Your task to perform on an android device: Open Google Image 0: 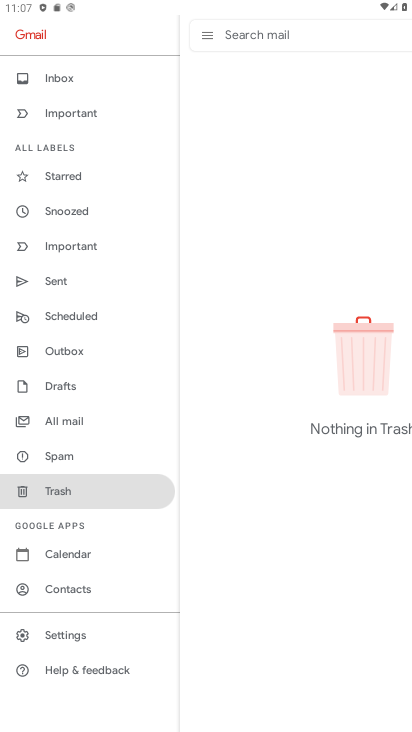
Step 0: press home button
Your task to perform on an android device: Open Google Image 1: 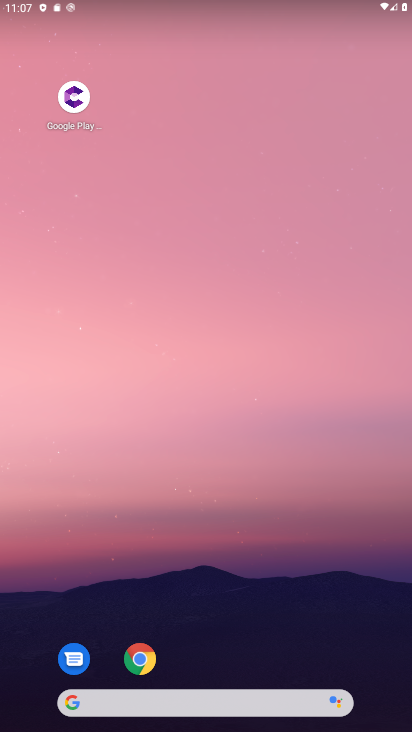
Step 1: click (138, 664)
Your task to perform on an android device: Open Google Image 2: 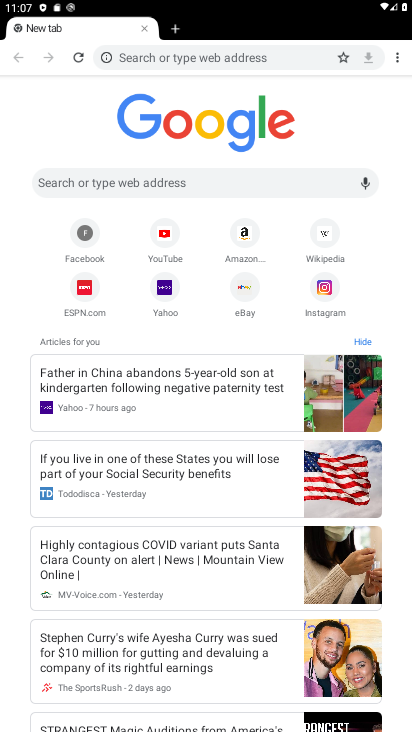
Step 2: task complete